Your task to perform on an android device: change the clock display to show seconds Image 0: 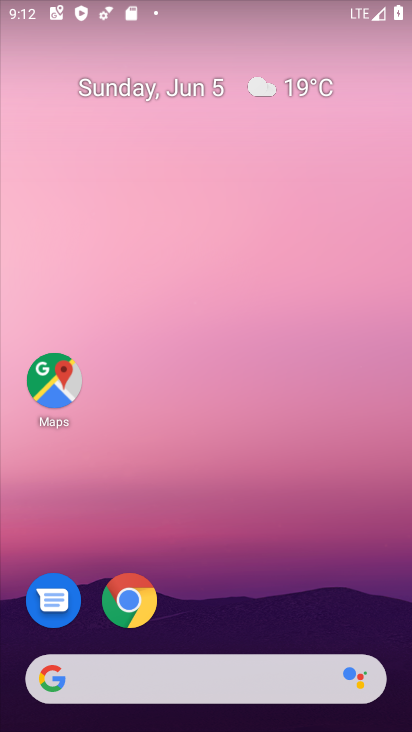
Step 0: drag from (261, 601) to (155, 2)
Your task to perform on an android device: change the clock display to show seconds Image 1: 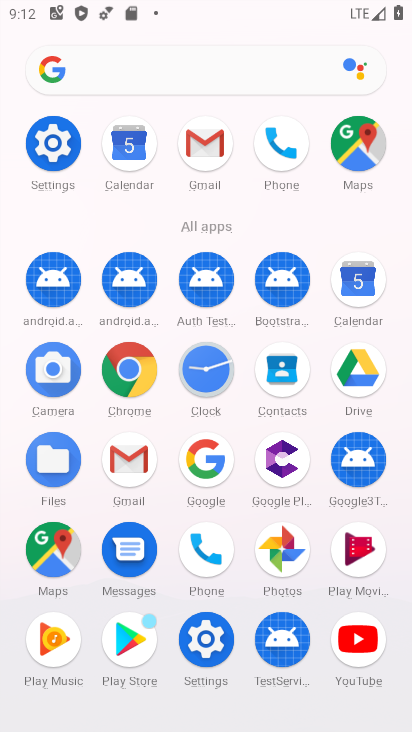
Step 1: click (199, 392)
Your task to perform on an android device: change the clock display to show seconds Image 2: 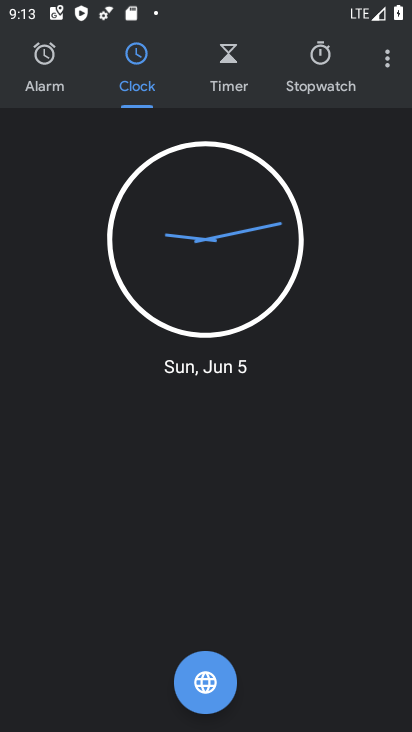
Step 2: click (395, 68)
Your task to perform on an android device: change the clock display to show seconds Image 3: 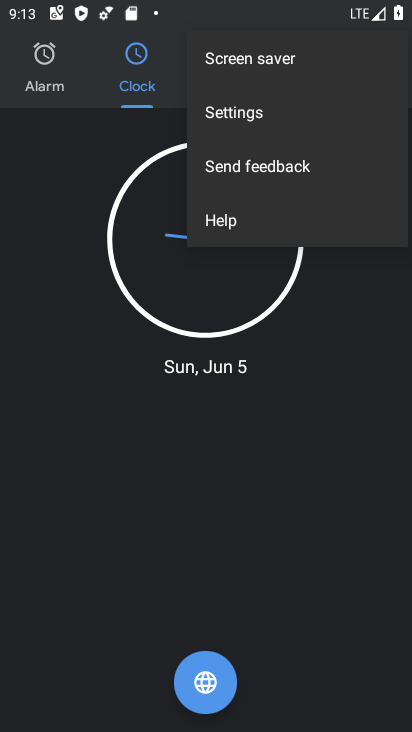
Step 3: click (296, 117)
Your task to perform on an android device: change the clock display to show seconds Image 4: 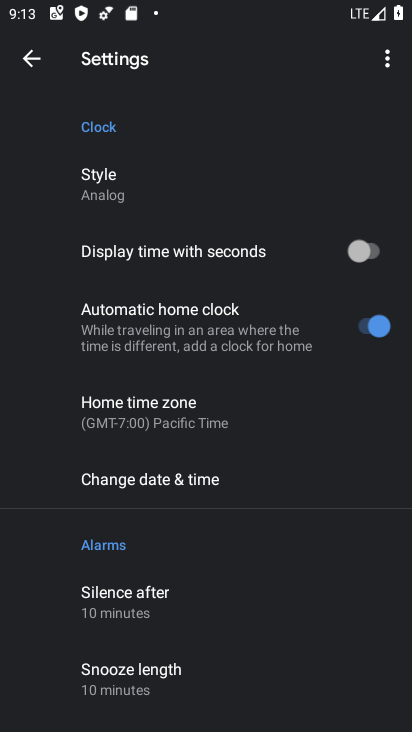
Step 4: click (343, 263)
Your task to perform on an android device: change the clock display to show seconds Image 5: 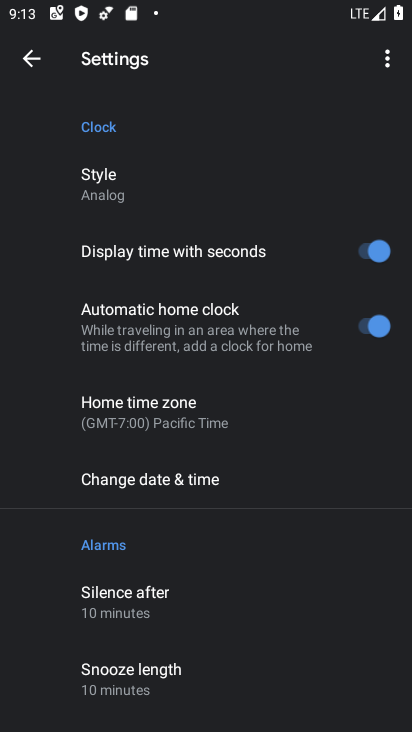
Step 5: task complete